Your task to perform on an android device: Toggle the flashlight Image 0: 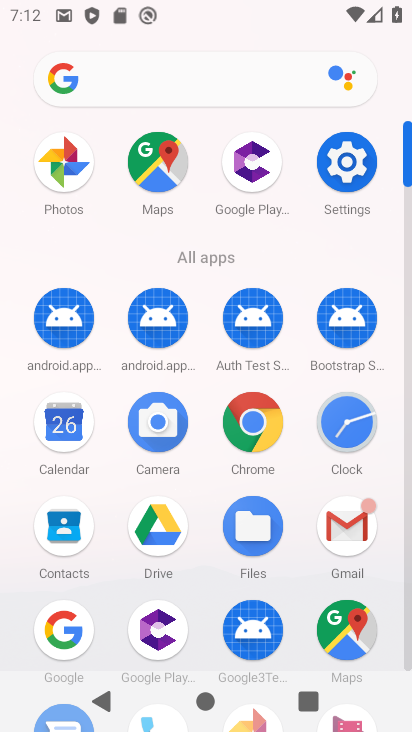
Step 0: press home button
Your task to perform on an android device: Toggle the flashlight Image 1: 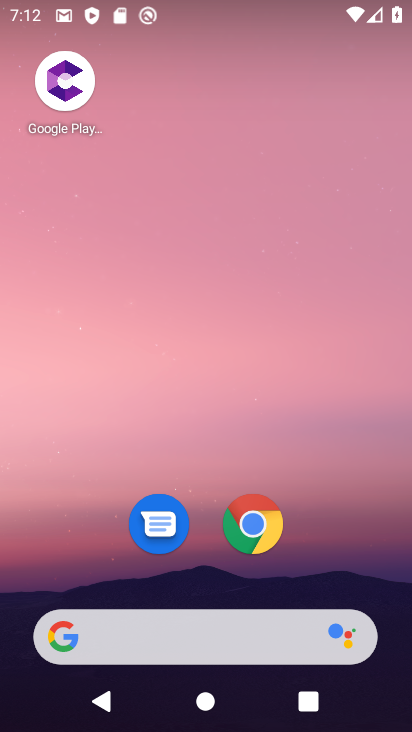
Step 1: drag from (229, 142) to (190, 421)
Your task to perform on an android device: Toggle the flashlight Image 2: 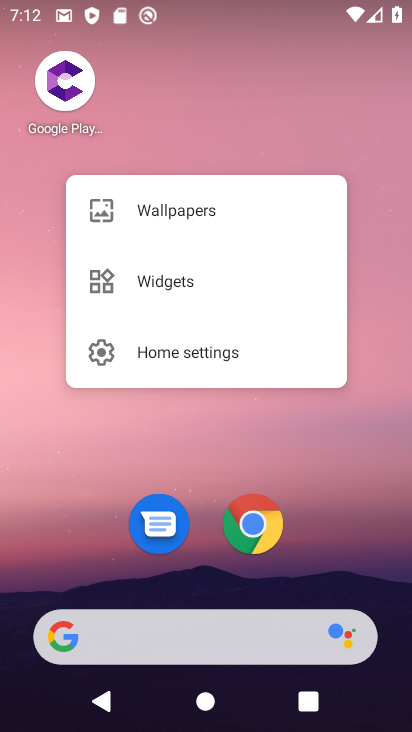
Step 2: drag from (237, 6) to (239, 320)
Your task to perform on an android device: Toggle the flashlight Image 3: 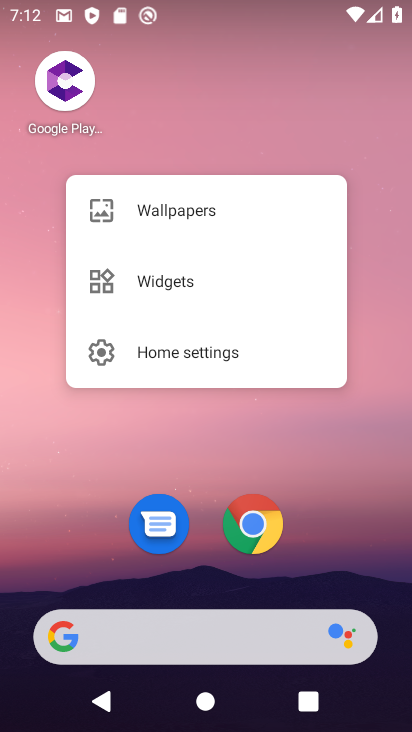
Step 3: click (297, 68)
Your task to perform on an android device: Toggle the flashlight Image 4: 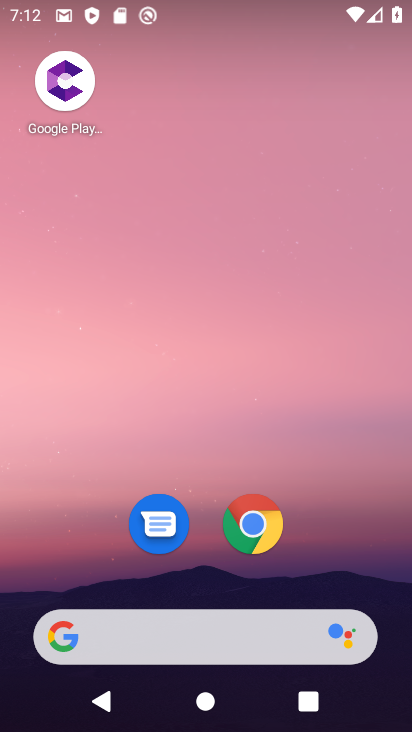
Step 4: task complete